Your task to perform on an android device: Go to Yahoo.com Image 0: 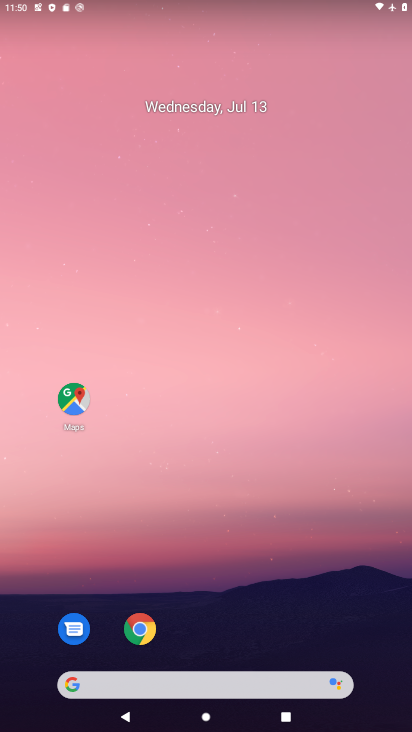
Step 0: press back button
Your task to perform on an android device: Go to Yahoo.com Image 1: 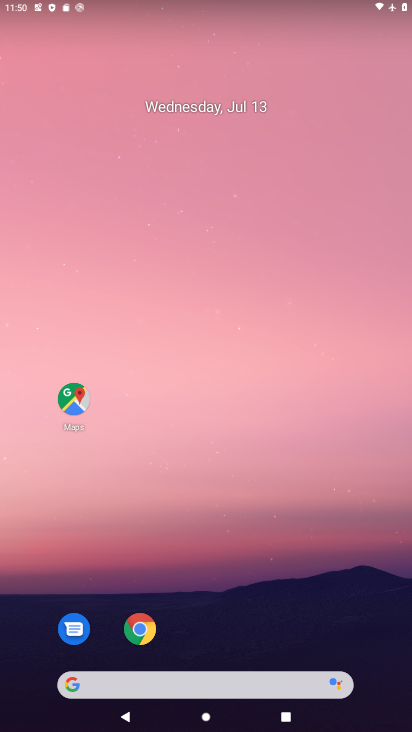
Step 1: drag from (237, 703) to (187, 72)
Your task to perform on an android device: Go to Yahoo.com Image 2: 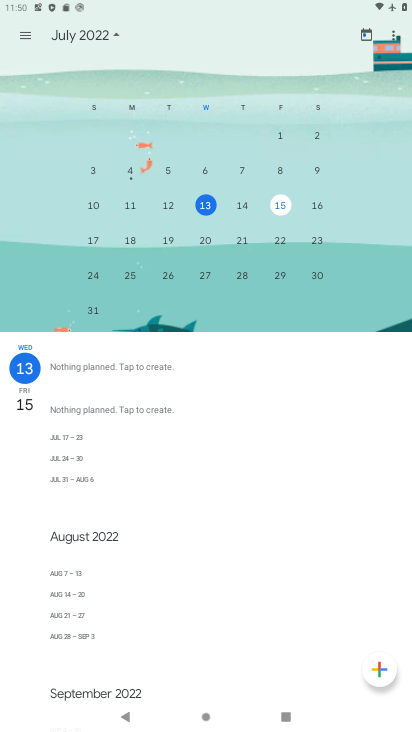
Step 2: press back button
Your task to perform on an android device: Go to Yahoo.com Image 3: 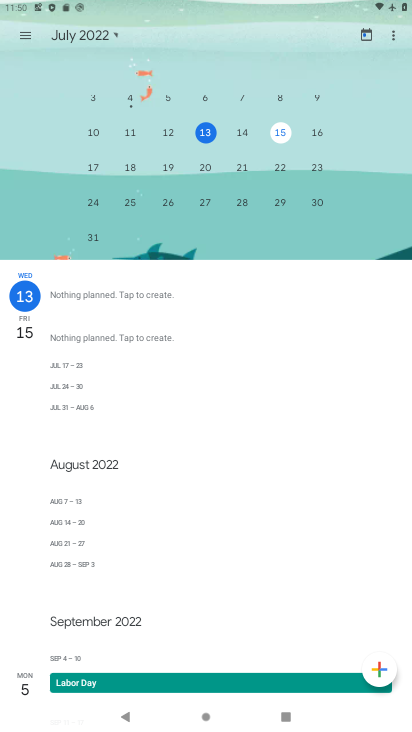
Step 3: press back button
Your task to perform on an android device: Go to Yahoo.com Image 4: 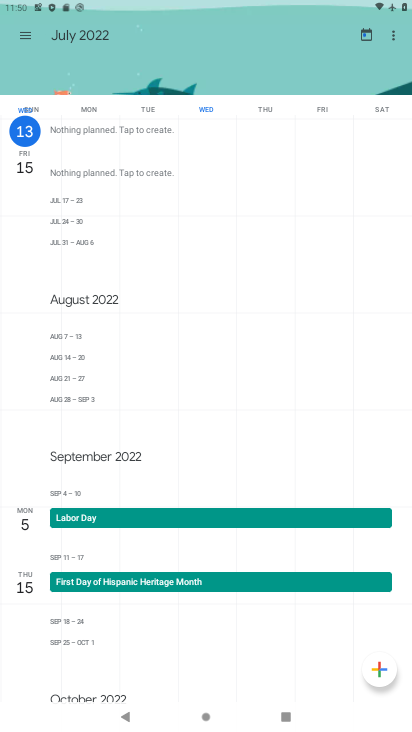
Step 4: press back button
Your task to perform on an android device: Go to Yahoo.com Image 5: 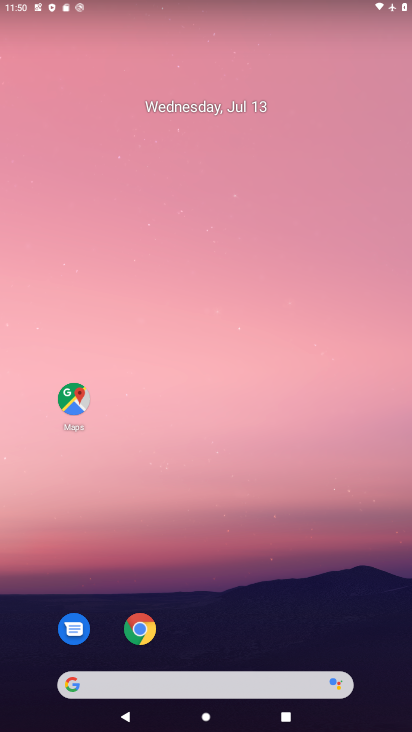
Step 5: drag from (249, 675) to (110, 59)
Your task to perform on an android device: Go to Yahoo.com Image 6: 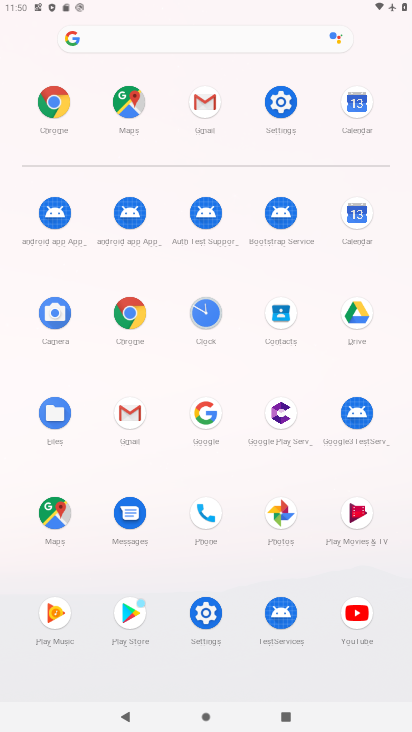
Step 6: click (57, 109)
Your task to perform on an android device: Go to Yahoo.com Image 7: 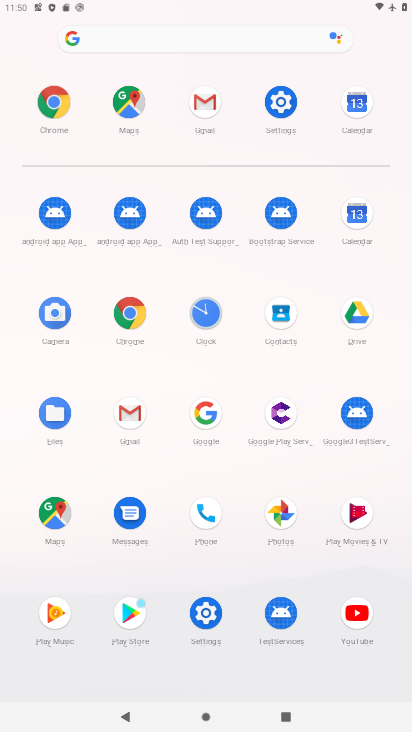
Step 7: click (56, 108)
Your task to perform on an android device: Go to Yahoo.com Image 8: 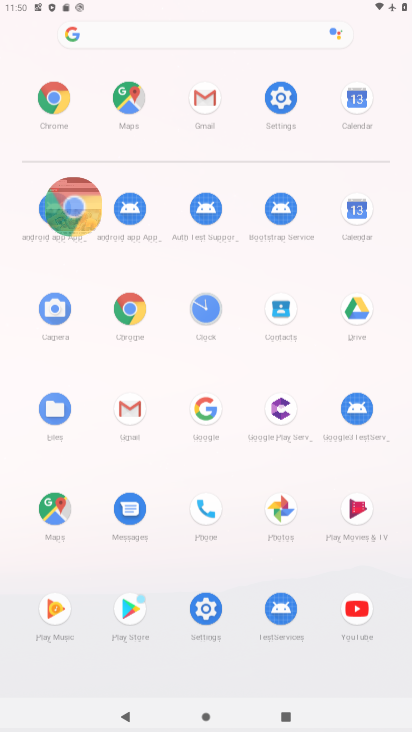
Step 8: click (55, 108)
Your task to perform on an android device: Go to Yahoo.com Image 9: 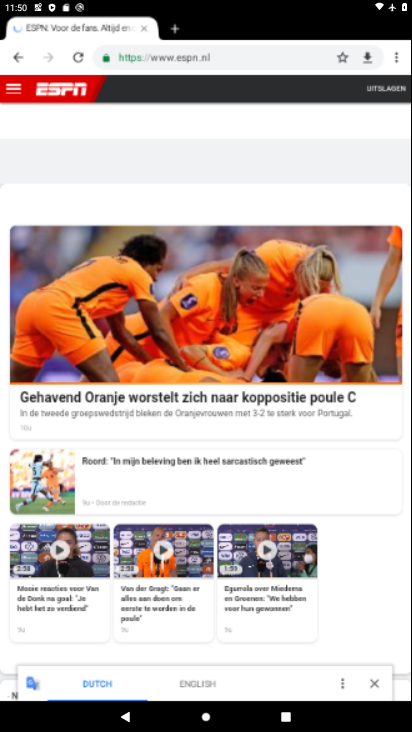
Step 9: click (55, 108)
Your task to perform on an android device: Go to Yahoo.com Image 10: 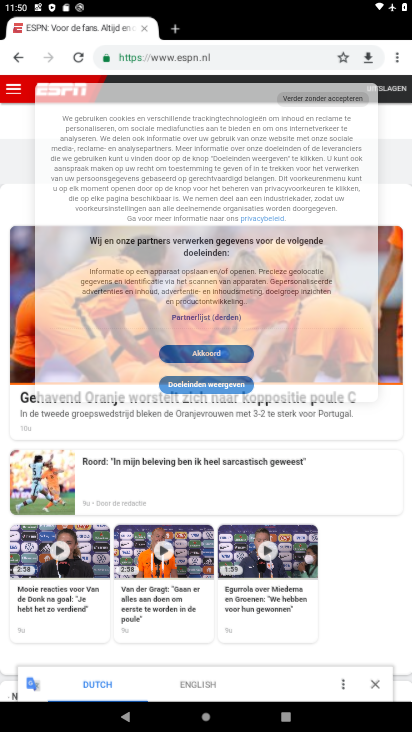
Step 10: drag from (400, 48) to (272, 50)
Your task to perform on an android device: Go to Yahoo.com Image 11: 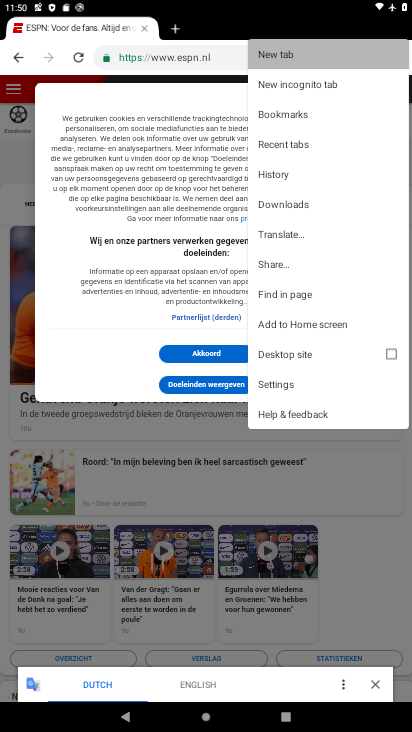
Step 11: click (272, 48)
Your task to perform on an android device: Go to Yahoo.com Image 12: 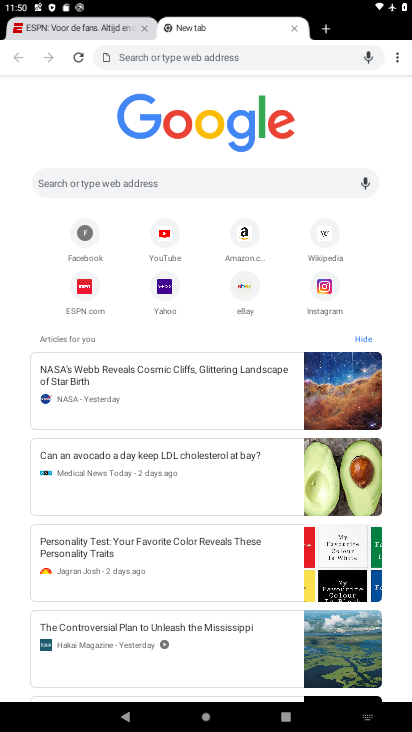
Step 12: click (156, 282)
Your task to perform on an android device: Go to Yahoo.com Image 13: 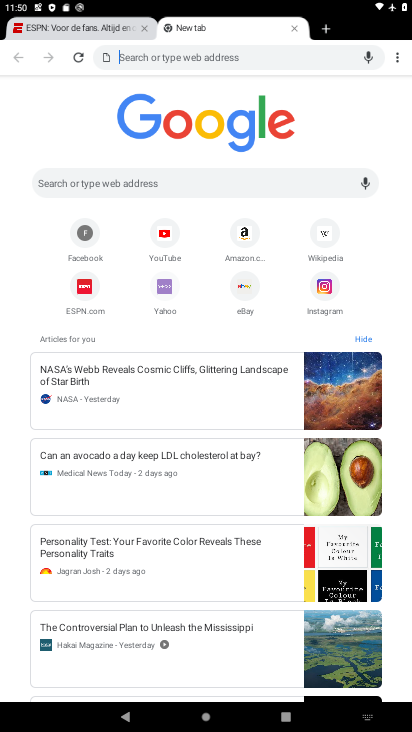
Step 13: click (156, 282)
Your task to perform on an android device: Go to Yahoo.com Image 14: 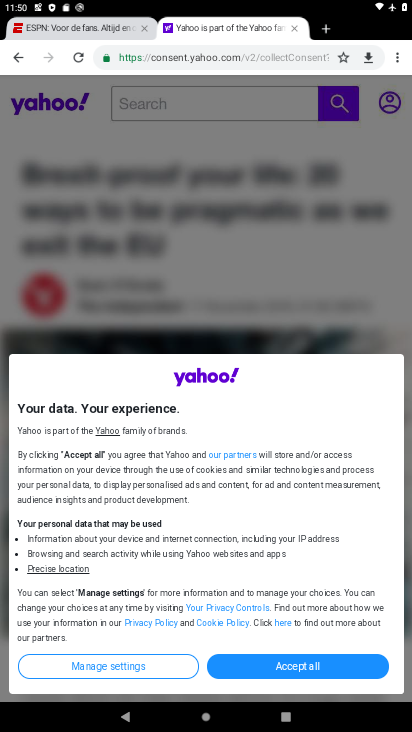
Step 14: task complete